Your task to perform on an android device: Go to CNN.com Image 0: 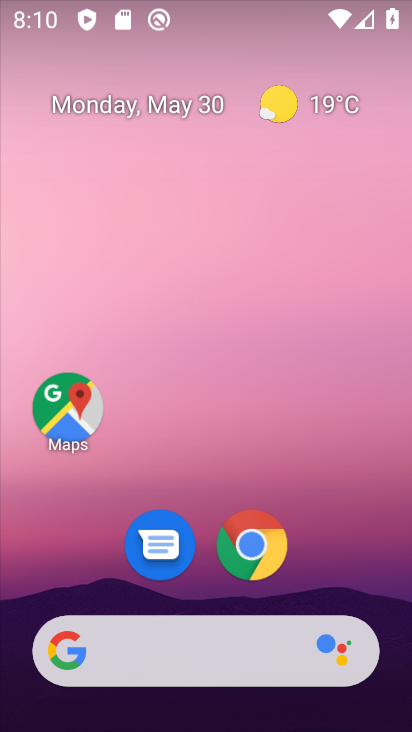
Step 0: click (253, 528)
Your task to perform on an android device: Go to CNN.com Image 1: 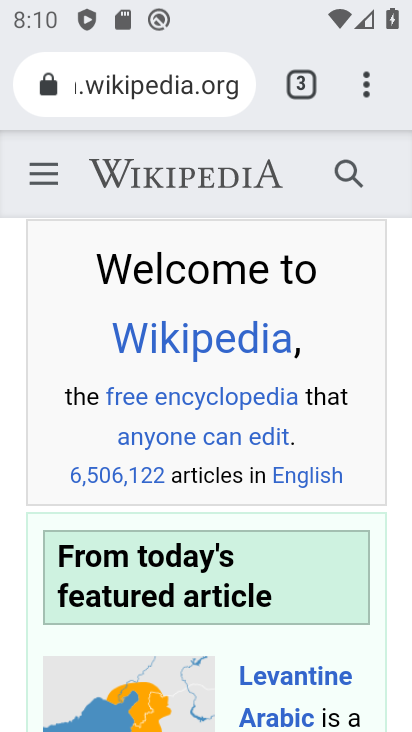
Step 1: click (306, 85)
Your task to perform on an android device: Go to CNN.com Image 2: 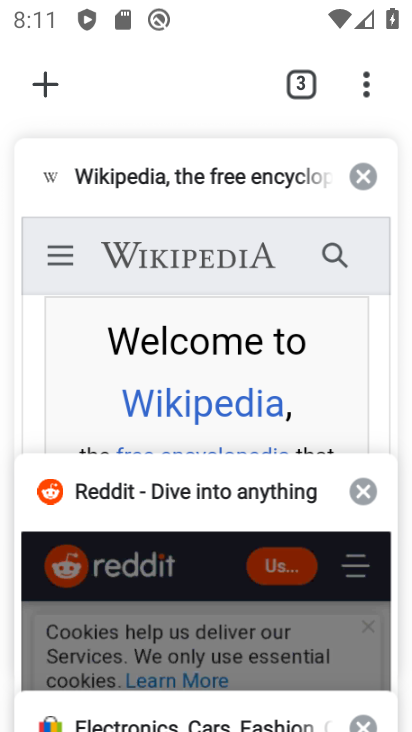
Step 2: click (56, 82)
Your task to perform on an android device: Go to CNN.com Image 3: 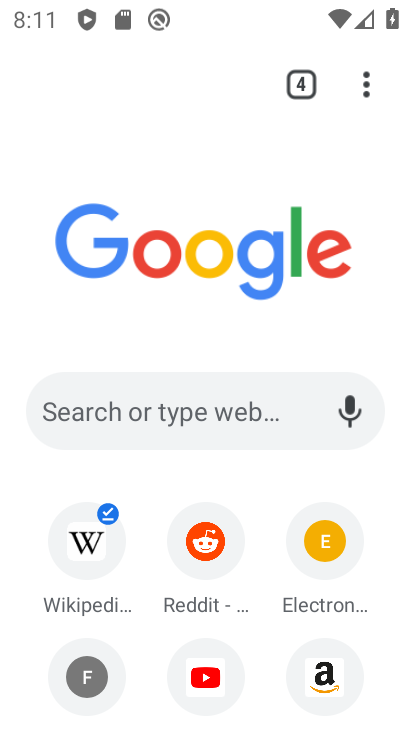
Step 3: click (204, 393)
Your task to perform on an android device: Go to CNN.com Image 4: 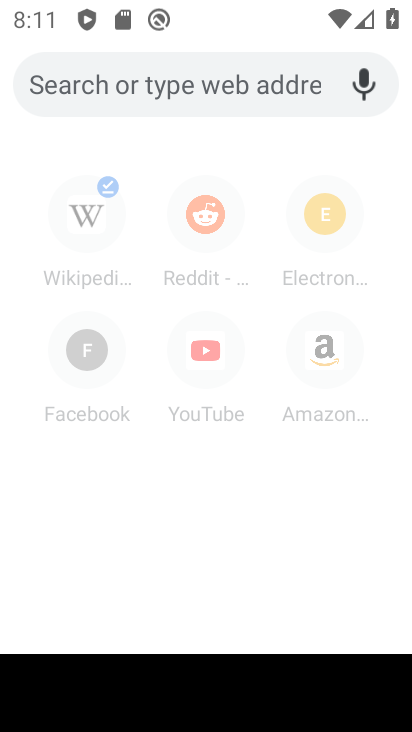
Step 4: type "CNN.com"
Your task to perform on an android device: Go to CNN.com Image 5: 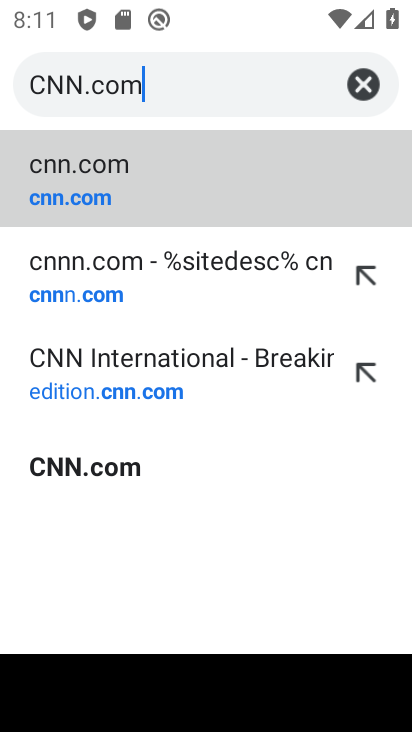
Step 5: click (101, 203)
Your task to perform on an android device: Go to CNN.com Image 6: 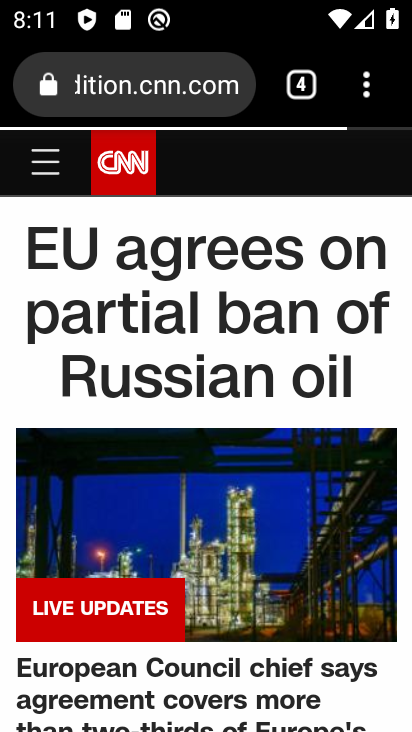
Step 6: task complete